Your task to perform on an android device: change timer sound Image 0: 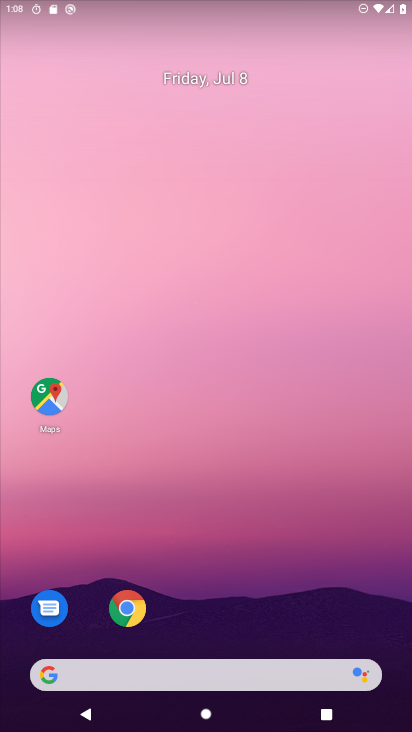
Step 0: drag from (252, 728) to (238, 158)
Your task to perform on an android device: change timer sound Image 1: 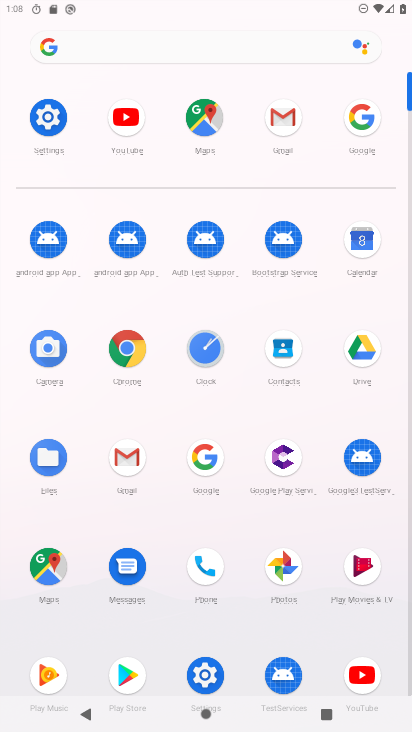
Step 1: click (51, 118)
Your task to perform on an android device: change timer sound Image 2: 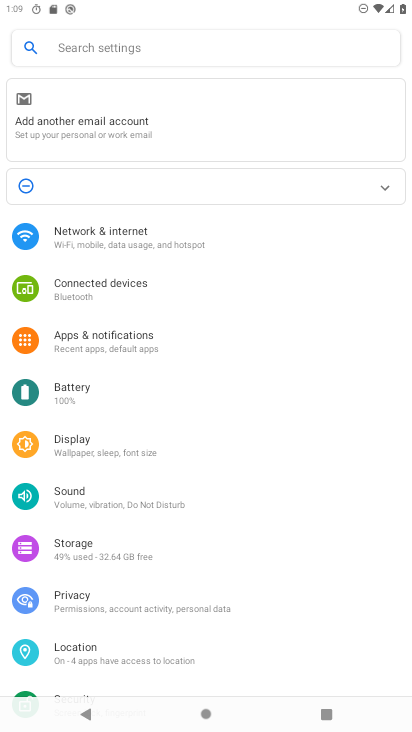
Step 2: press home button
Your task to perform on an android device: change timer sound Image 3: 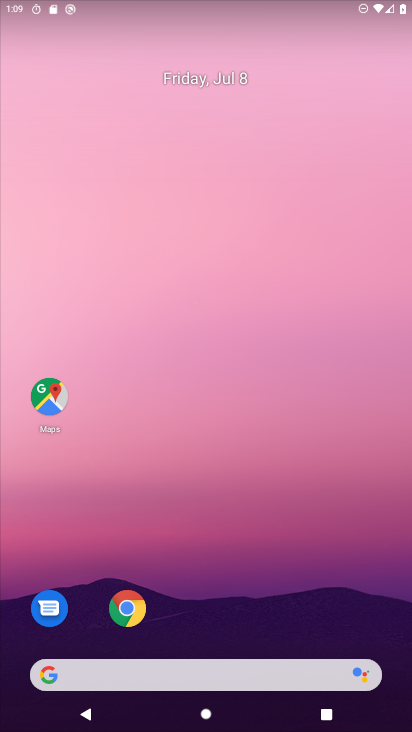
Step 3: drag from (244, 723) to (247, 154)
Your task to perform on an android device: change timer sound Image 4: 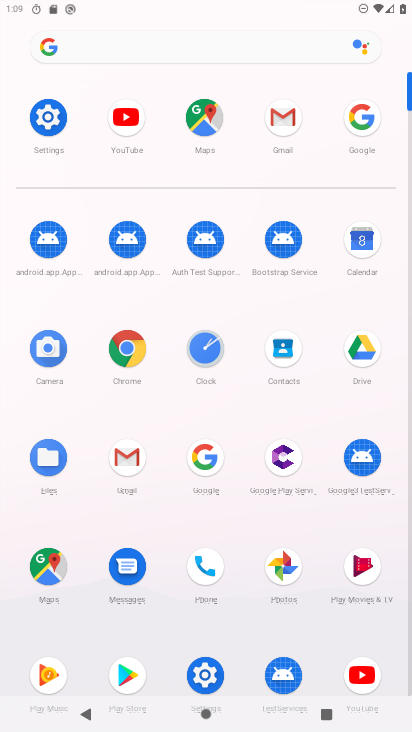
Step 4: click (206, 355)
Your task to perform on an android device: change timer sound Image 5: 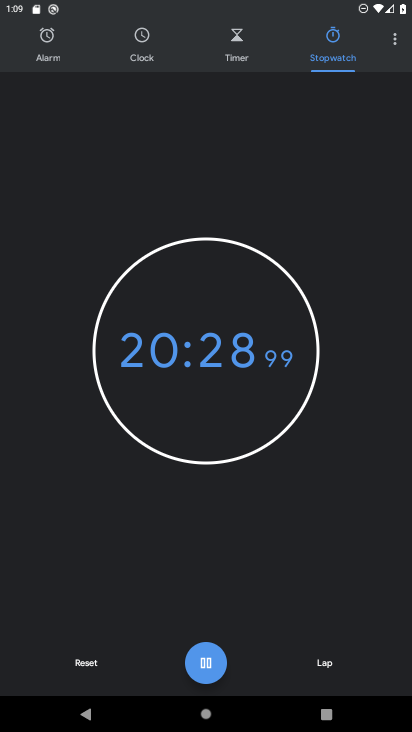
Step 5: click (394, 43)
Your task to perform on an android device: change timer sound Image 6: 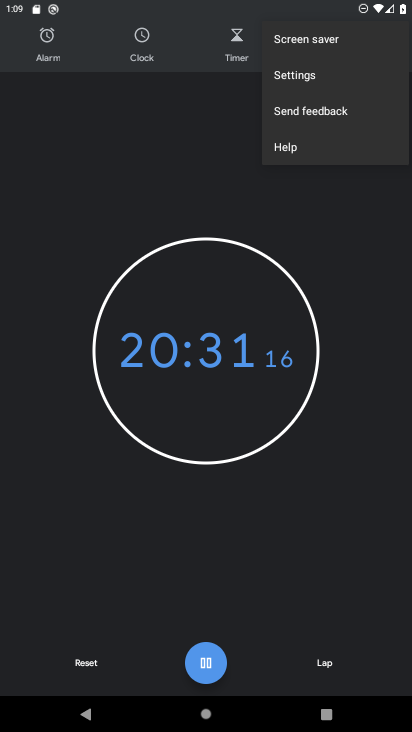
Step 6: click (302, 76)
Your task to perform on an android device: change timer sound Image 7: 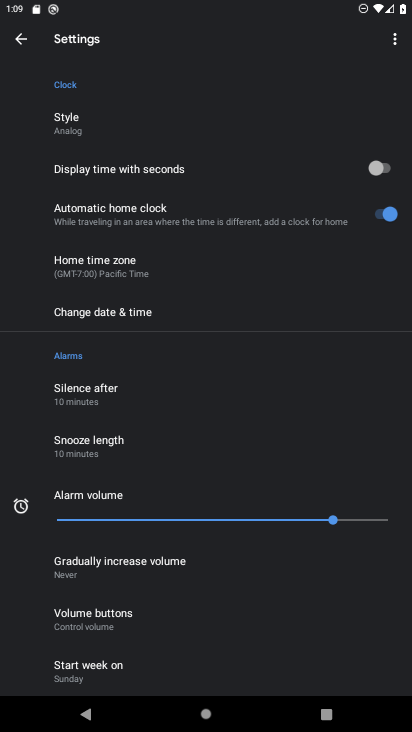
Step 7: drag from (131, 652) to (131, 332)
Your task to perform on an android device: change timer sound Image 8: 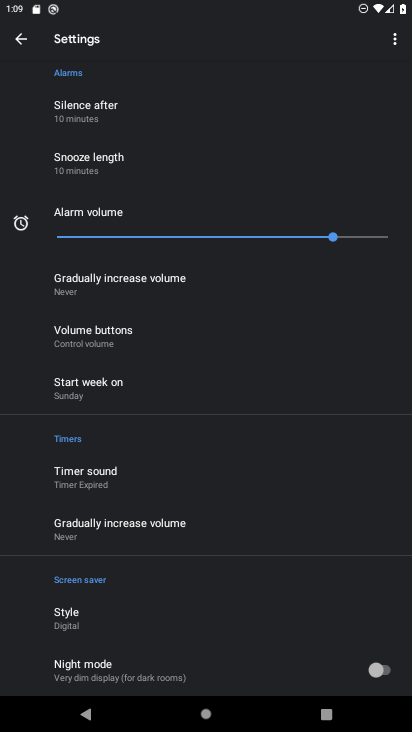
Step 8: click (77, 478)
Your task to perform on an android device: change timer sound Image 9: 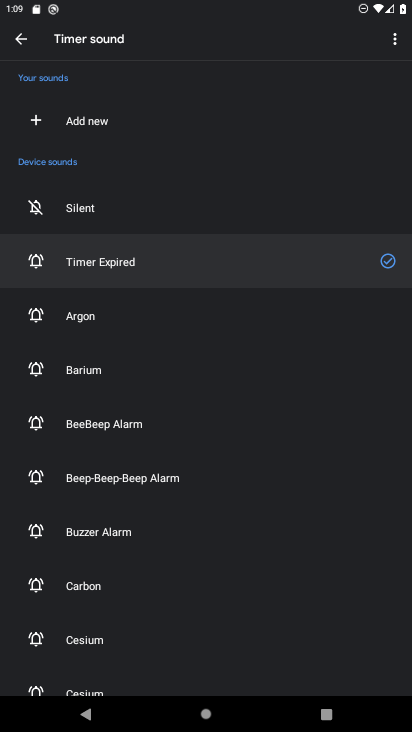
Step 9: click (79, 532)
Your task to perform on an android device: change timer sound Image 10: 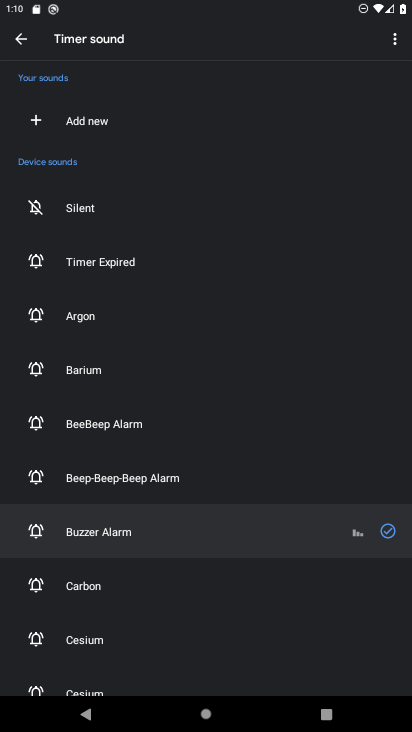
Step 10: task complete